Your task to perform on an android device: open chrome and create a bookmark for the current page Image 0: 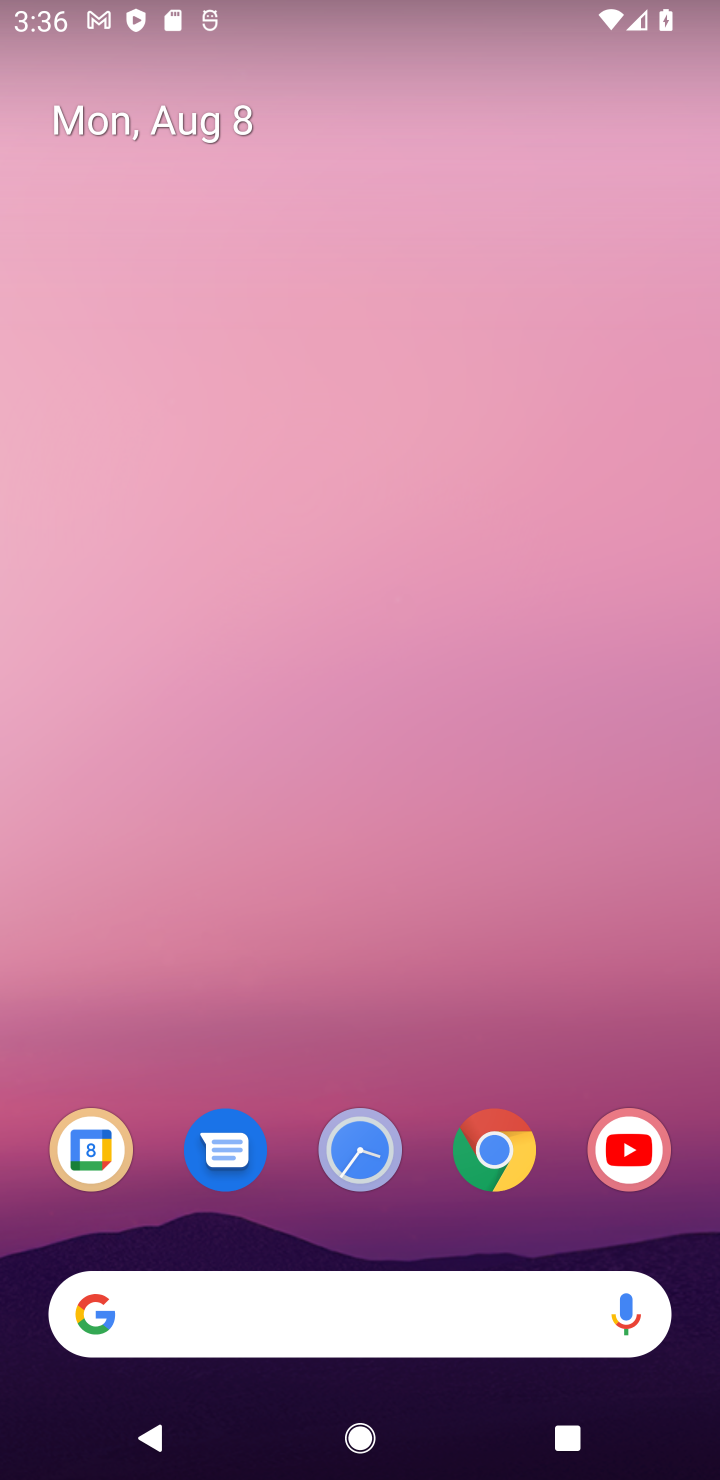
Step 0: click (508, 1183)
Your task to perform on an android device: open chrome and create a bookmark for the current page Image 1: 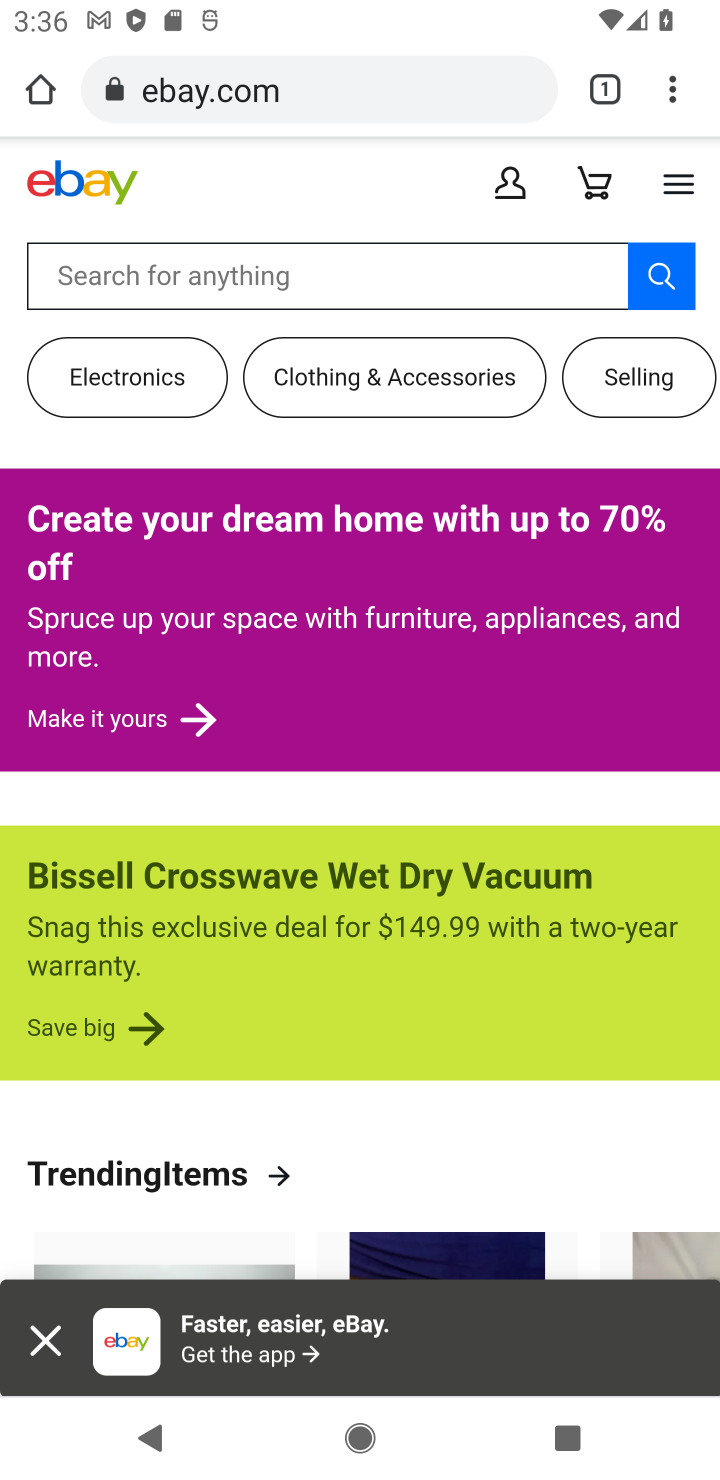
Step 1: task complete